Your task to perform on an android device: Open the calendar and show me this week's events? Image 0: 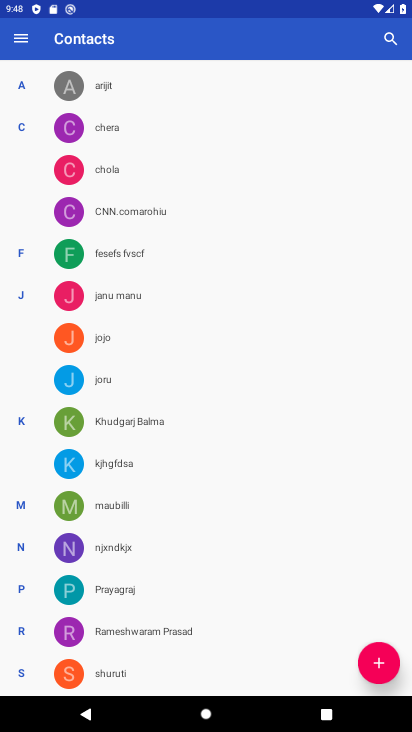
Step 0: press home button
Your task to perform on an android device: Open the calendar and show me this week's events? Image 1: 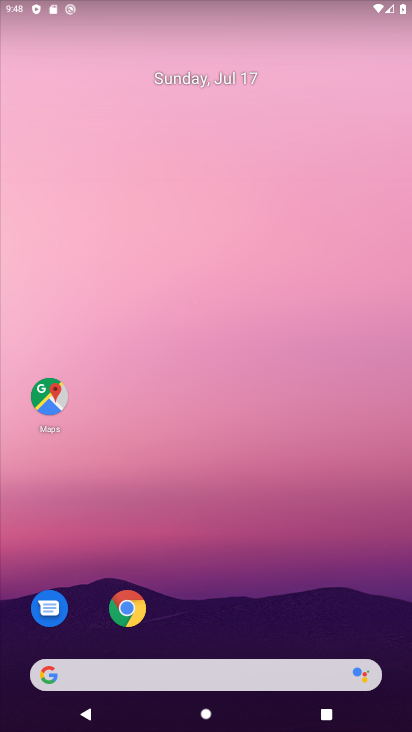
Step 1: drag from (257, 604) to (246, 9)
Your task to perform on an android device: Open the calendar and show me this week's events? Image 2: 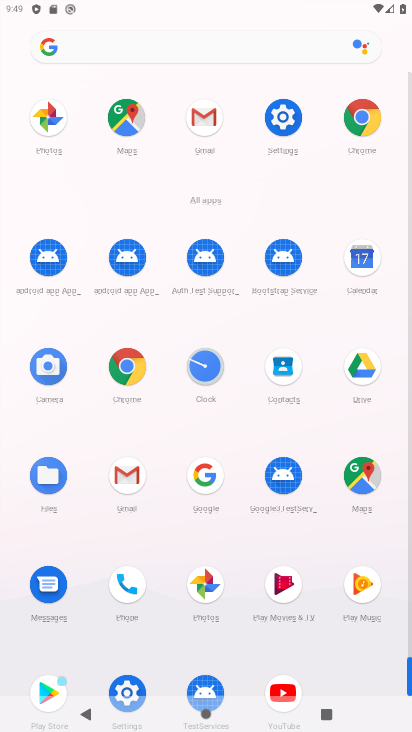
Step 2: click (363, 256)
Your task to perform on an android device: Open the calendar and show me this week's events? Image 3: 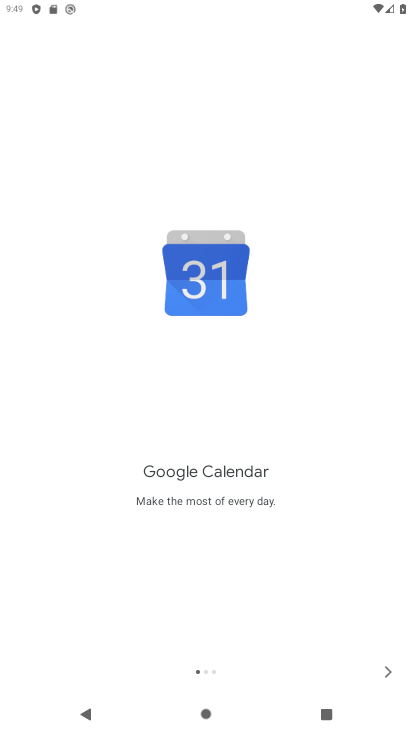
Step 3: click (390, 667)
Your task to perform on an android device: Open the calendar and show me this week's events? Image 4: 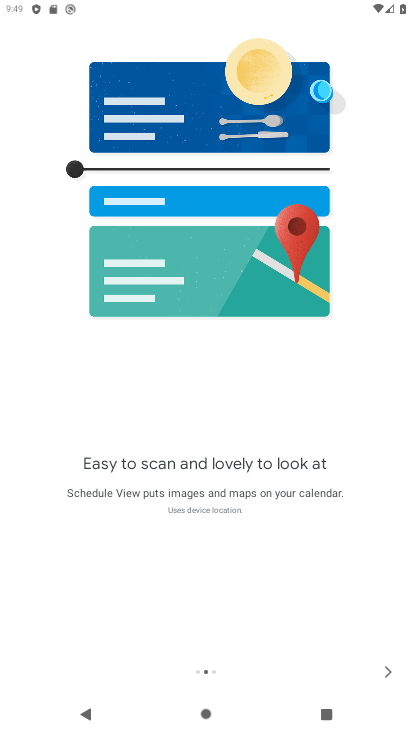
Step 4: click (390, 667)
Your task to perform on an android device: Open the calendar and show me this week's events? Image 5: 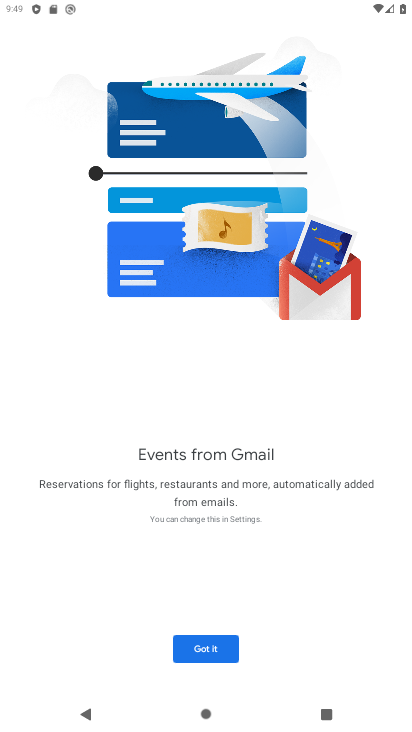
Step 5: click (204, 646)
Your task to perform on an android device: Open the calendar and show me this week's events? Image 6: 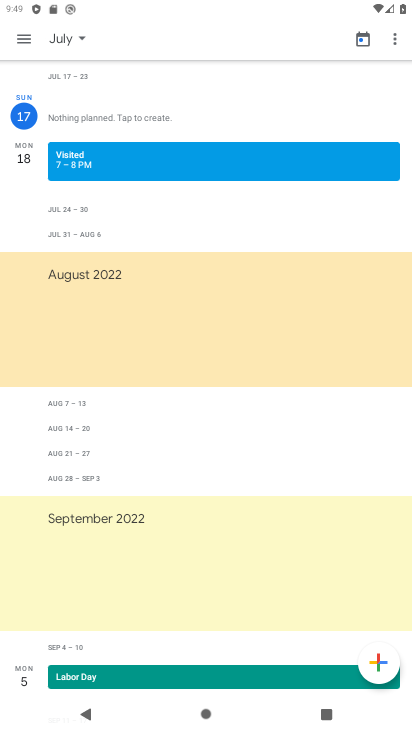
Step 6: click (20, 35)
Your task to perform on an android device: Open the calendar and show me this week's events? Image 7: 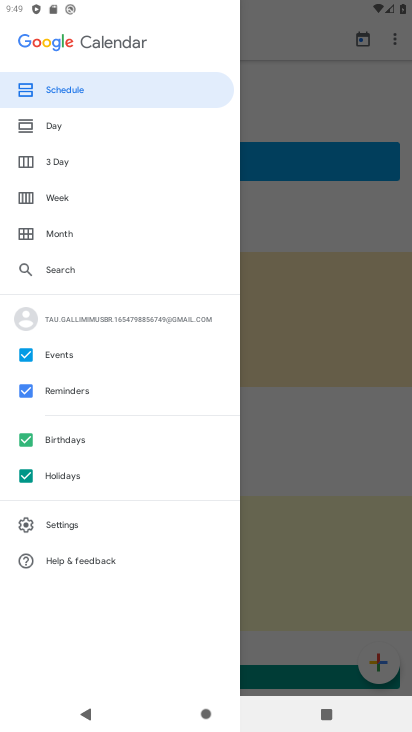
Step 7: click (66, 200)
Your task to perform on an android device: Open the calendar and show me this week's events? Image 8: 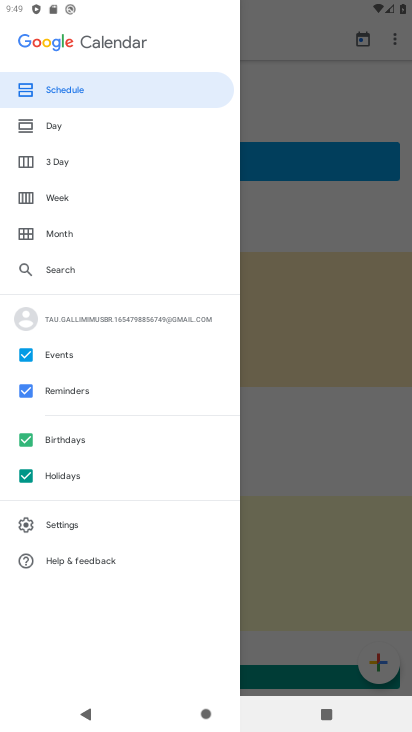
Step 8: click (56, 201)
Your task to perform on an android device: Open the calendar and show me this week's events? Image 9: 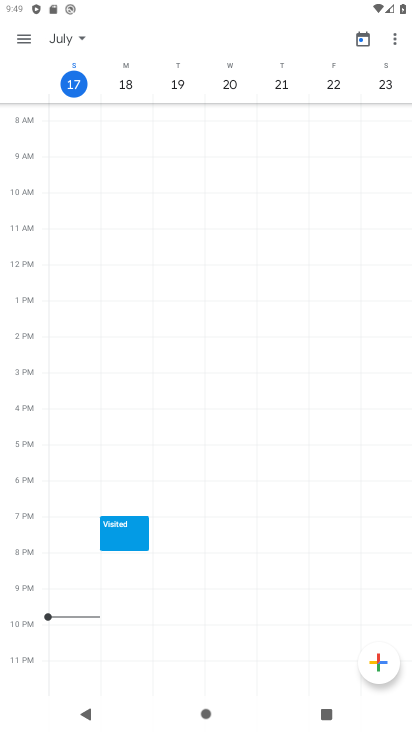
Step 9: task complete